Your task to perform on an android device: Go to Amazon Image 0: 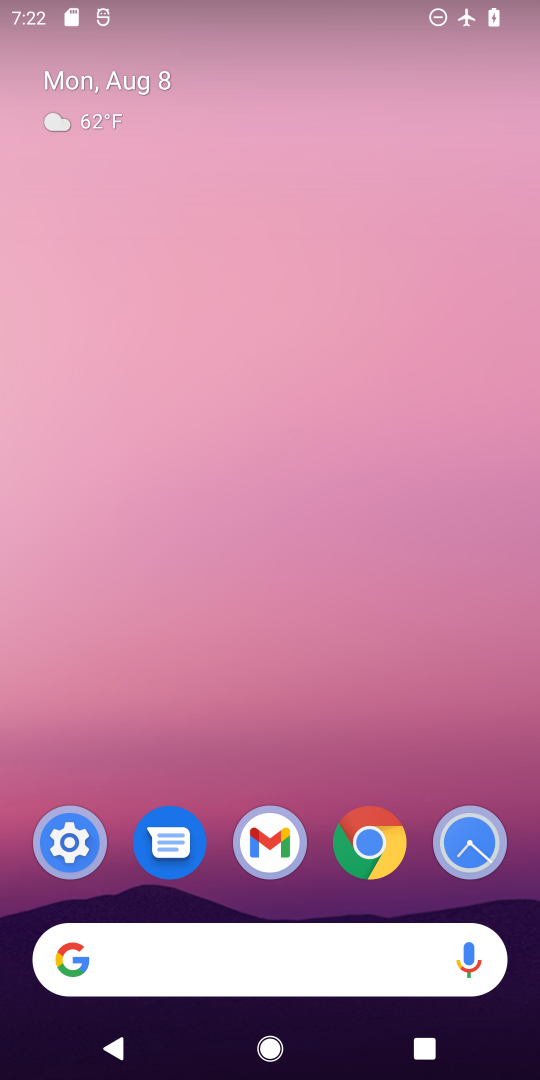
Step 0: click (352, 841)
Your task to perform on an android device: Go to Amazon Image 1: 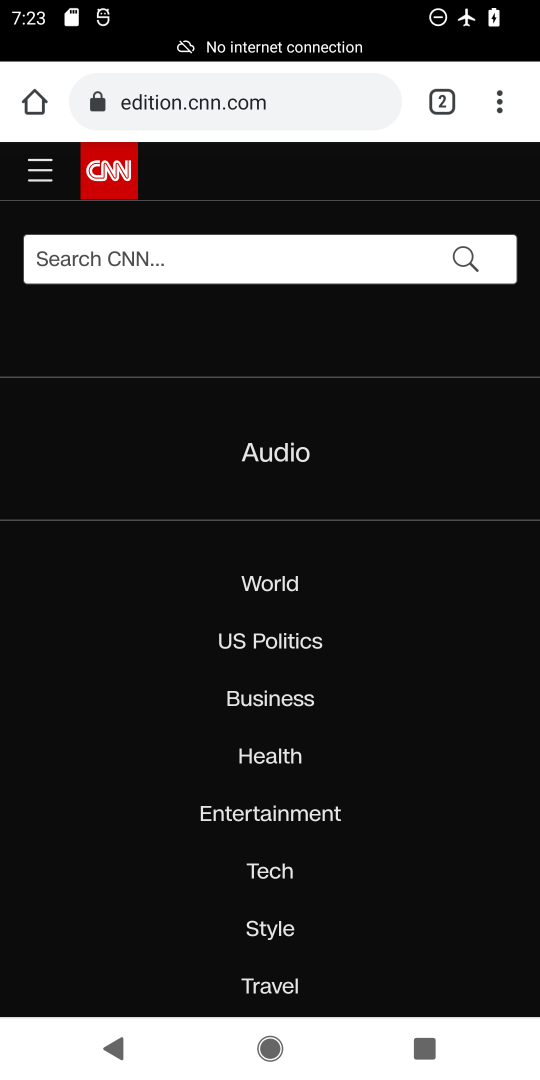
Step 1: click (448, 63)
Your task to perform on an android device: Go to Amazon Image 2: 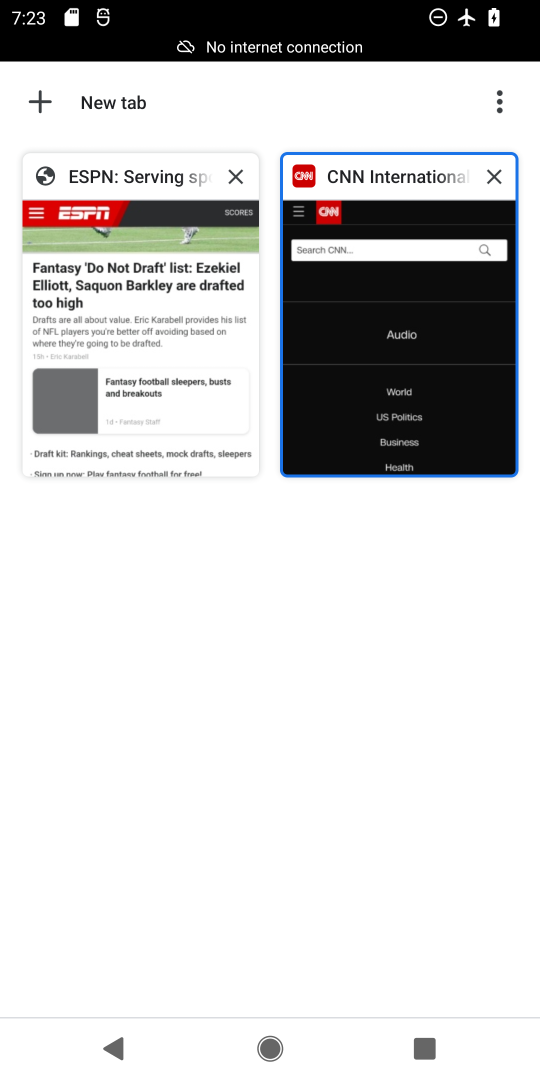
Step 2: click (441, 76)
Your task to perform on an android device: Go to Amazon Image 3: 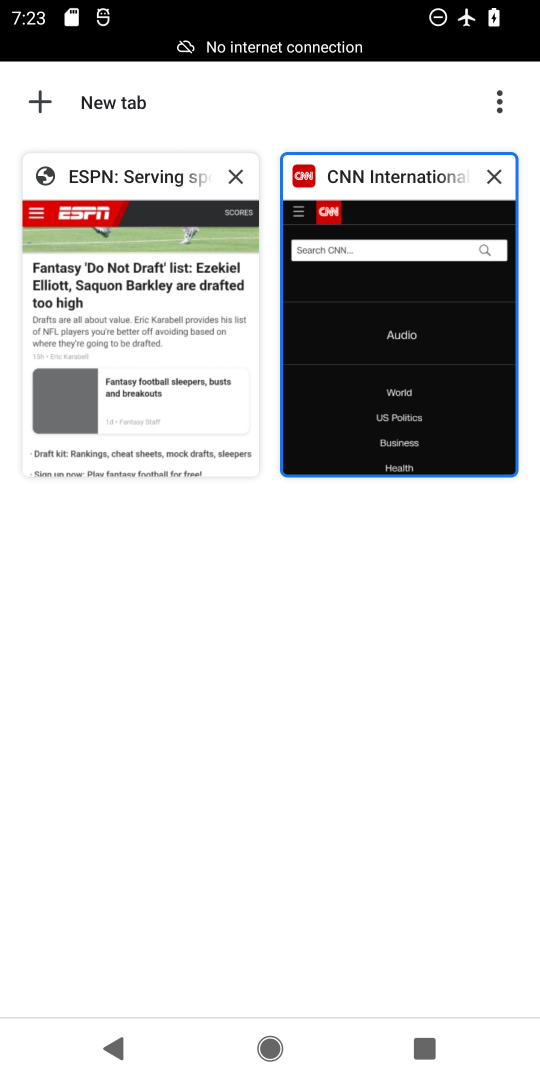
Step 3: click (40, 99)
Your task to perform on an android device: Go to Amazon Image 4: 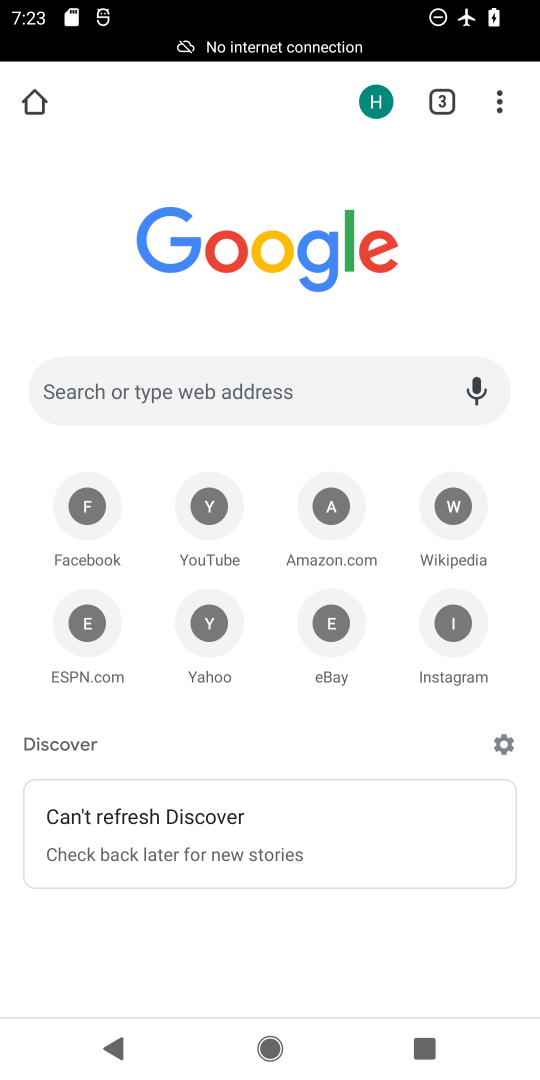
Step 4: click (332, 496)
Your task to perform on an android device: Go to Amazon Image 5: 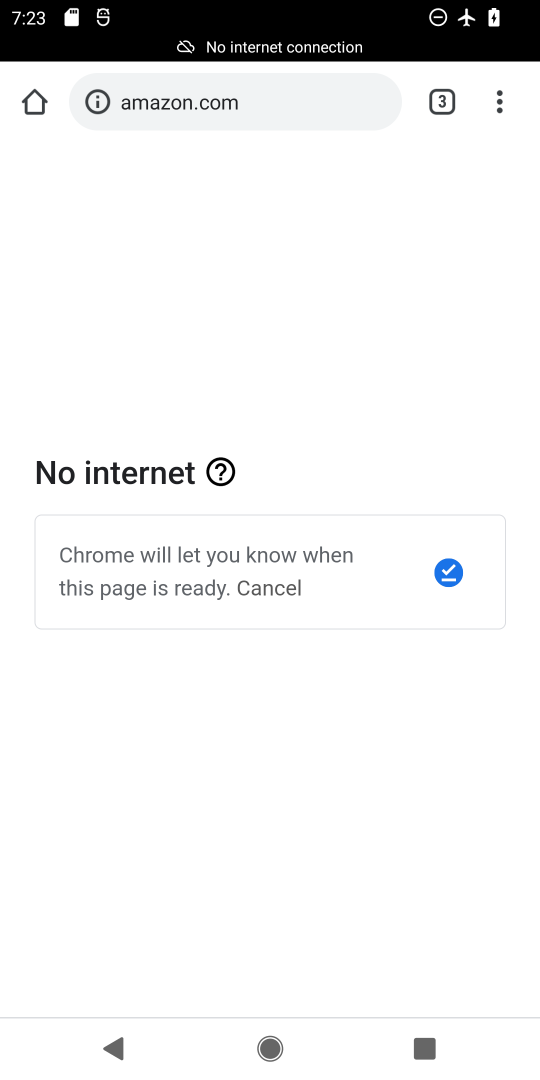
Step 5: task complete